Your task to perform on an android device: Open location settings Image 0: 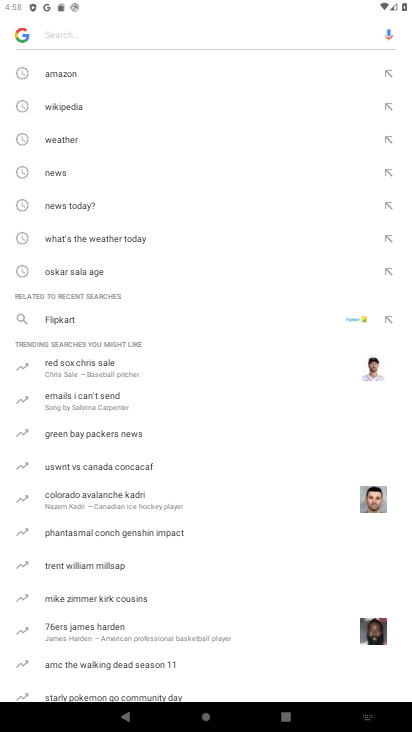
Step 0: press home button
Your task to perform on an android device: Open location settings Image 1: 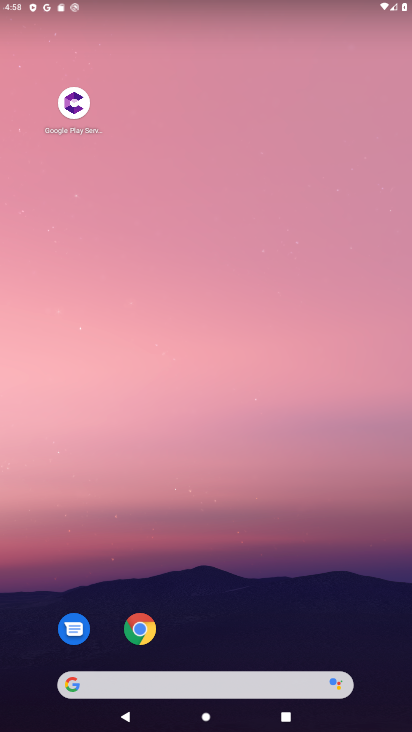
Step 1: drag from (316, 594) to (291, 6)
Your task to perform on an android device: Open location settings Image 2: 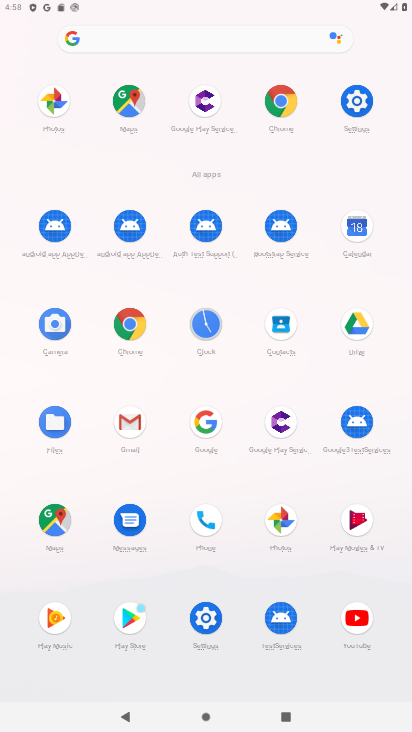
Step 2: click (367, 96)
Your task to perform on an android device: Open location settings Image 3: 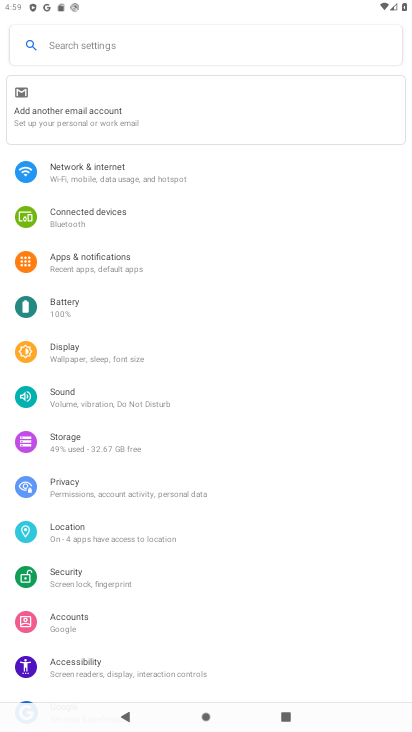
Step 3: click (85, 527)
Your task to perform on an android device: Open location settings Image 4: 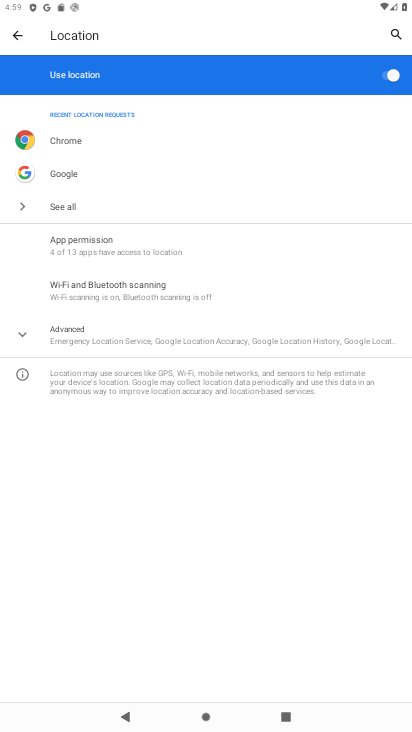
Step 4: task complete